Your task to perform on an android device: delete the emails in spam in the gmail app Image 0: 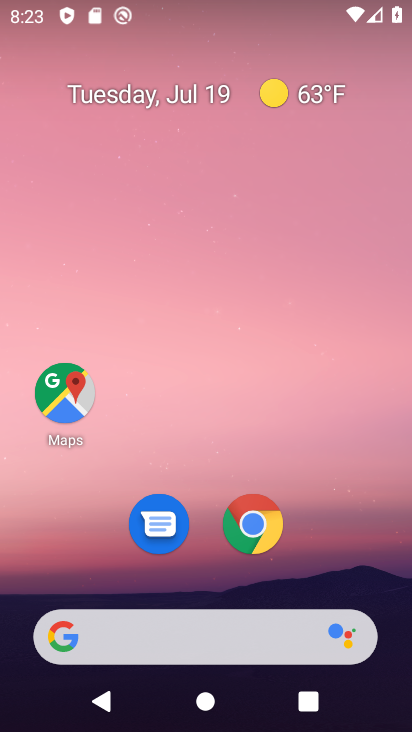
Step 0: press home button
Your task to perform on an android device: delete the emails in spam in the gmail app Image 1: 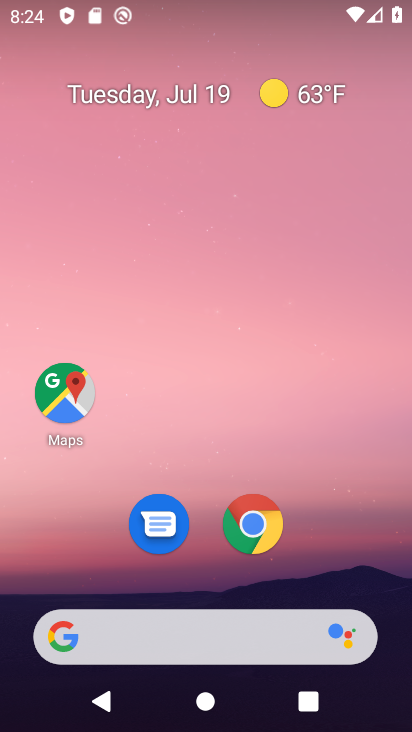
Step 1: drag from (241, 616) to (237, 155)
Your task to perform on an android device: delete the emails in spam in the gmail app Image 2: 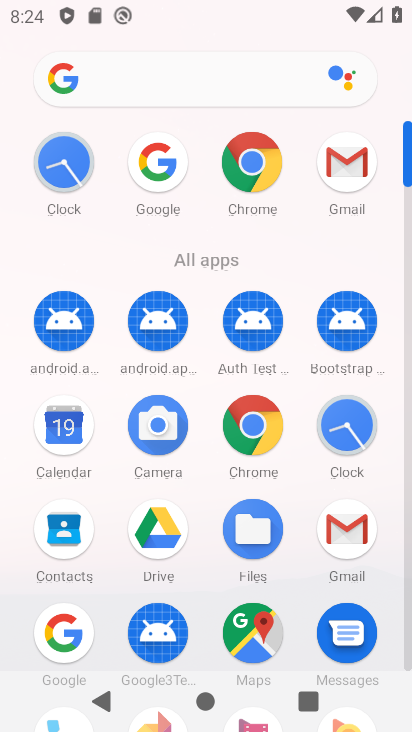
Step 2: click (345, 169)
Your task to perform on an android device: delete the emails in spam in the gmail app Image 3: 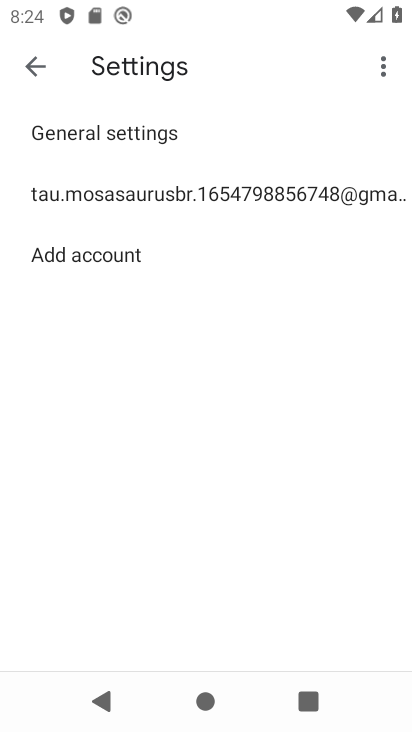
Step 3: click (36, 67)
Your task to perform on an android device: delete the emails in spam in the gmail app Image 4: 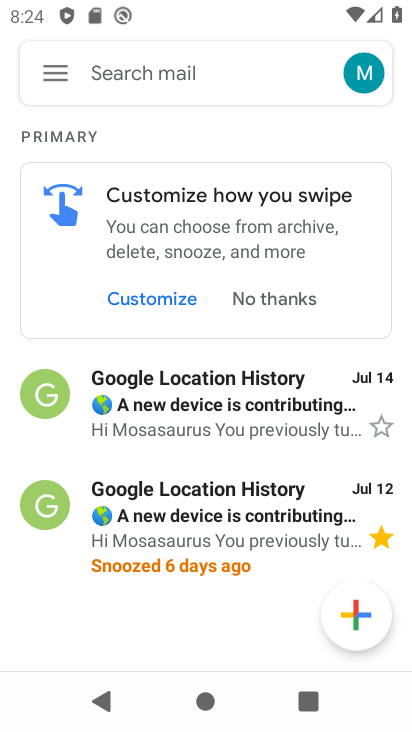
Step 4: click (42, 66)
Your task to perform on an android device: delete the emails in spam in the gmail app Image 5: 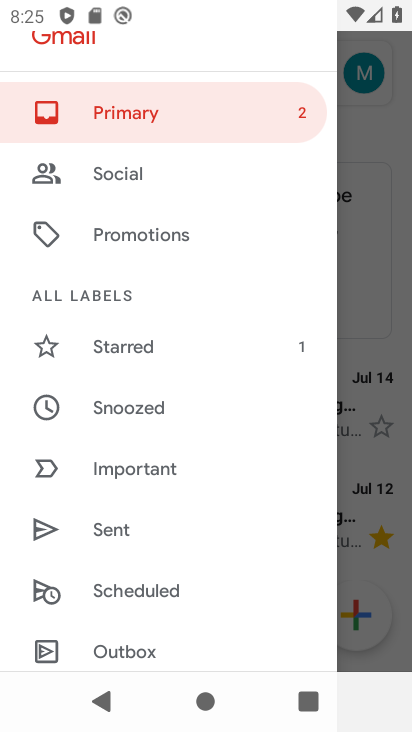
Step 5: drag from (200, 564) to (234, 156)
Your task to perform on an android device: delete the emails in spam in the gmail app Image 6: 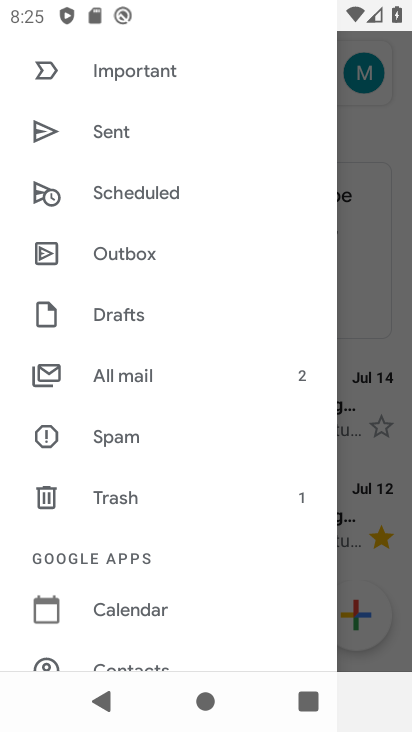
Step 6: click (137, 435)
Your task to perform on an android device: delete the emails in spam in the gmail app Image 7: 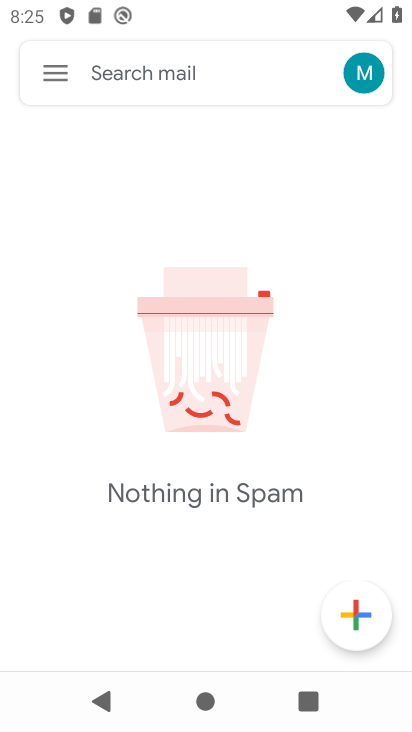
Step 7: task complete